Your task to perform on an android device: see creations saved in the google photos Image 0: 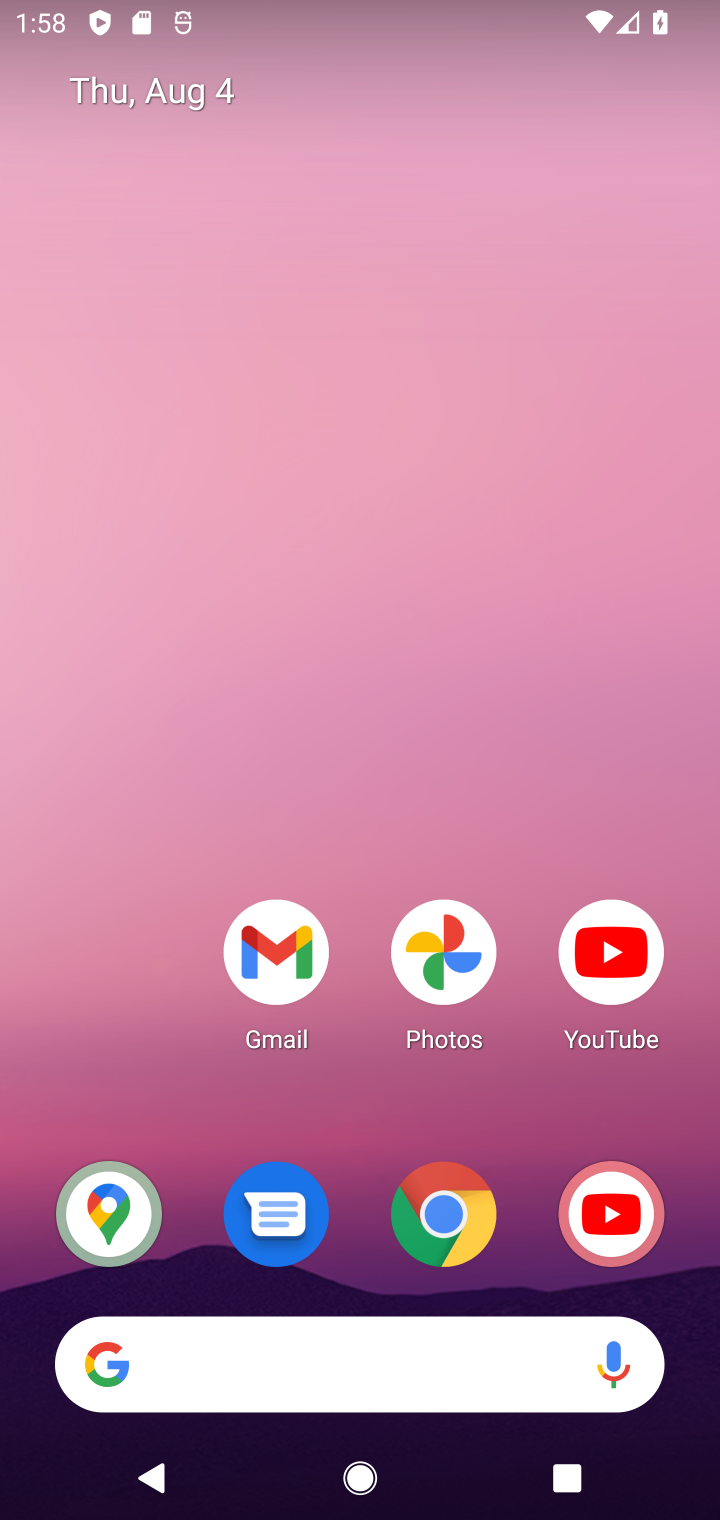
Step 0: drag from (494, 1061) to (329, 81)
Your task to perform on an android device: see creations saved in the google photos Image 1: 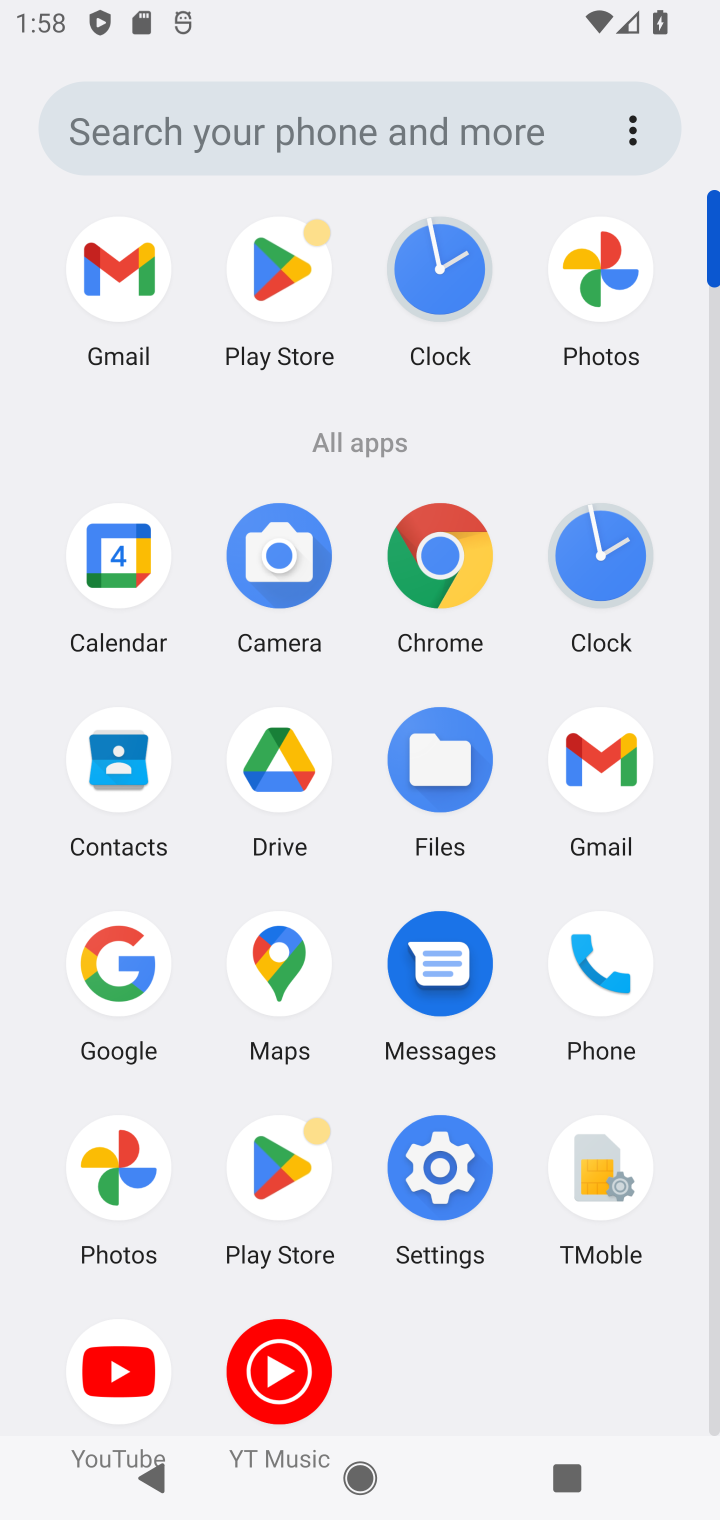
Step 1: click (130, 1176)
Your task to perform on an android device: see creations saved in the google photos Image 2: 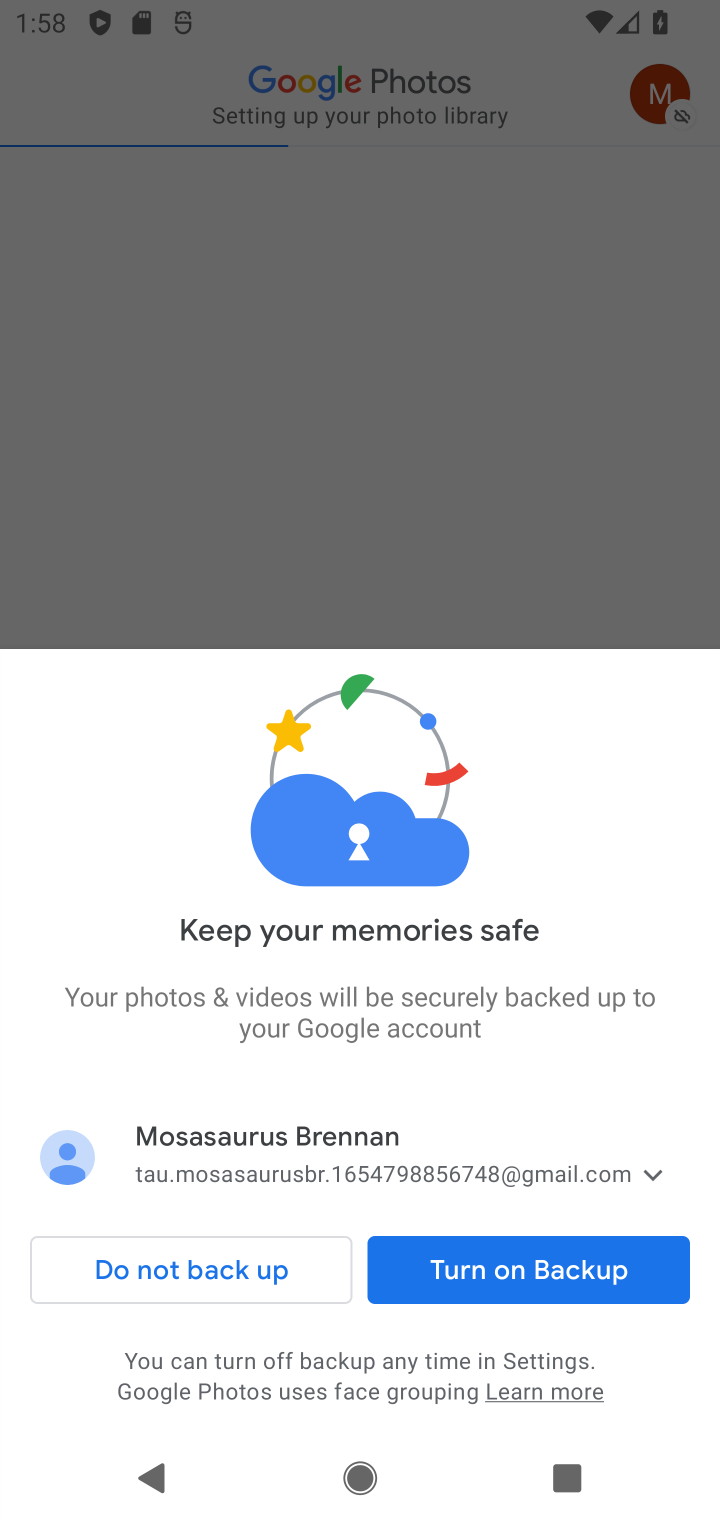
Step 2: click (532, 1287)
Your task to perform on an android device: see creations saved in the google photos Image 3: 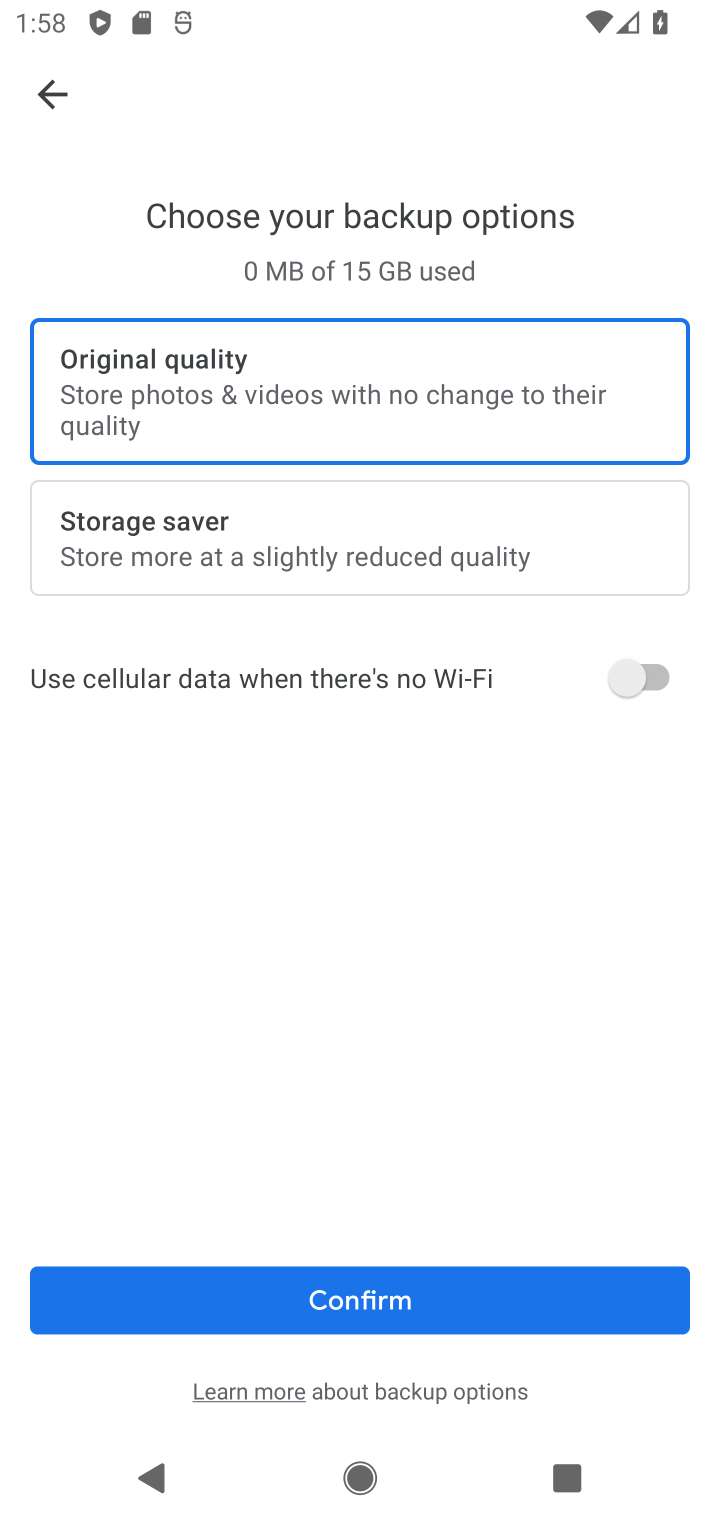
Step 3: click (216, 1304)
Your task to perform on an android device: see creations saved in the google photos Image 4: 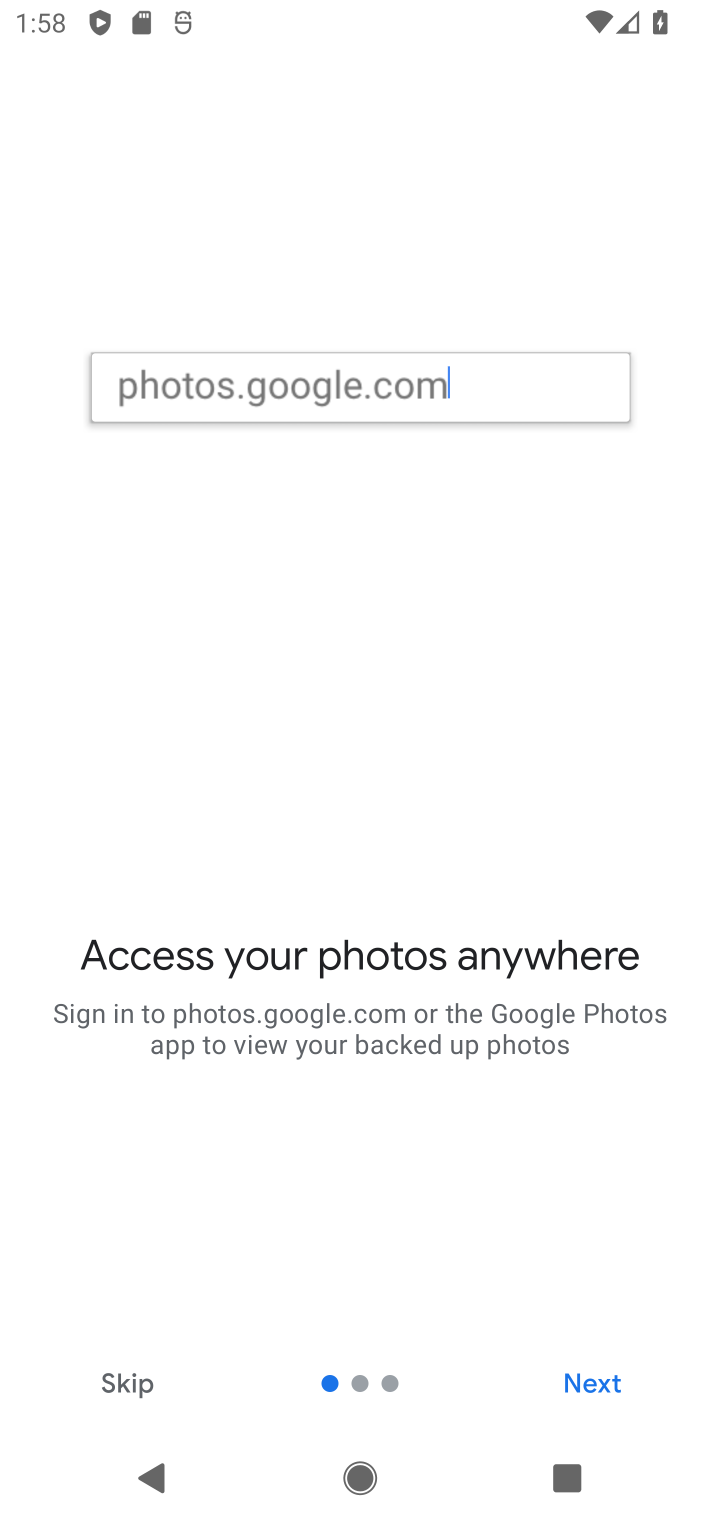
Step 4: click (579, 1384)
Your task to perform on an android device: see creations saved in the google photos Image 5: 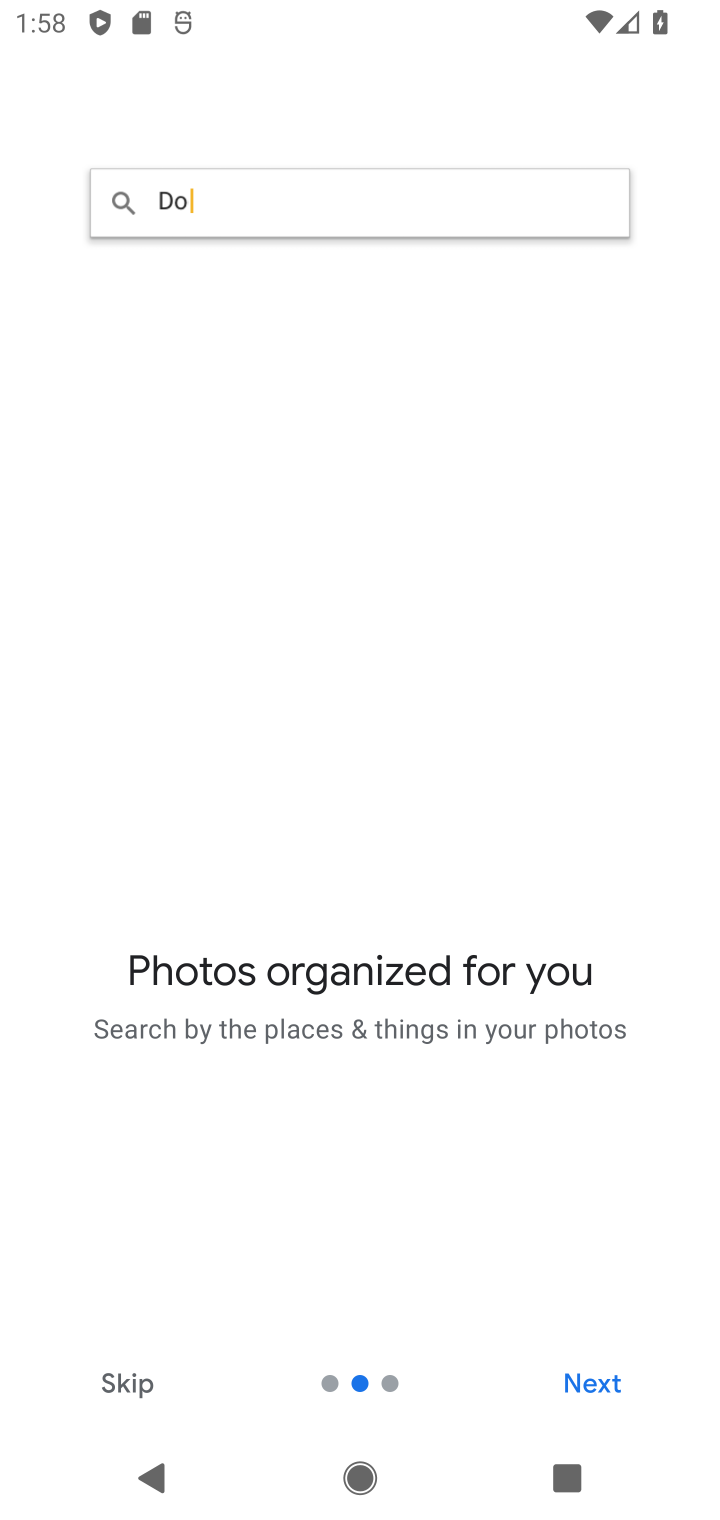
Step 5: click (574, 1378)
Your task to perform on an android device: see creations saved in the google photos Image 6: 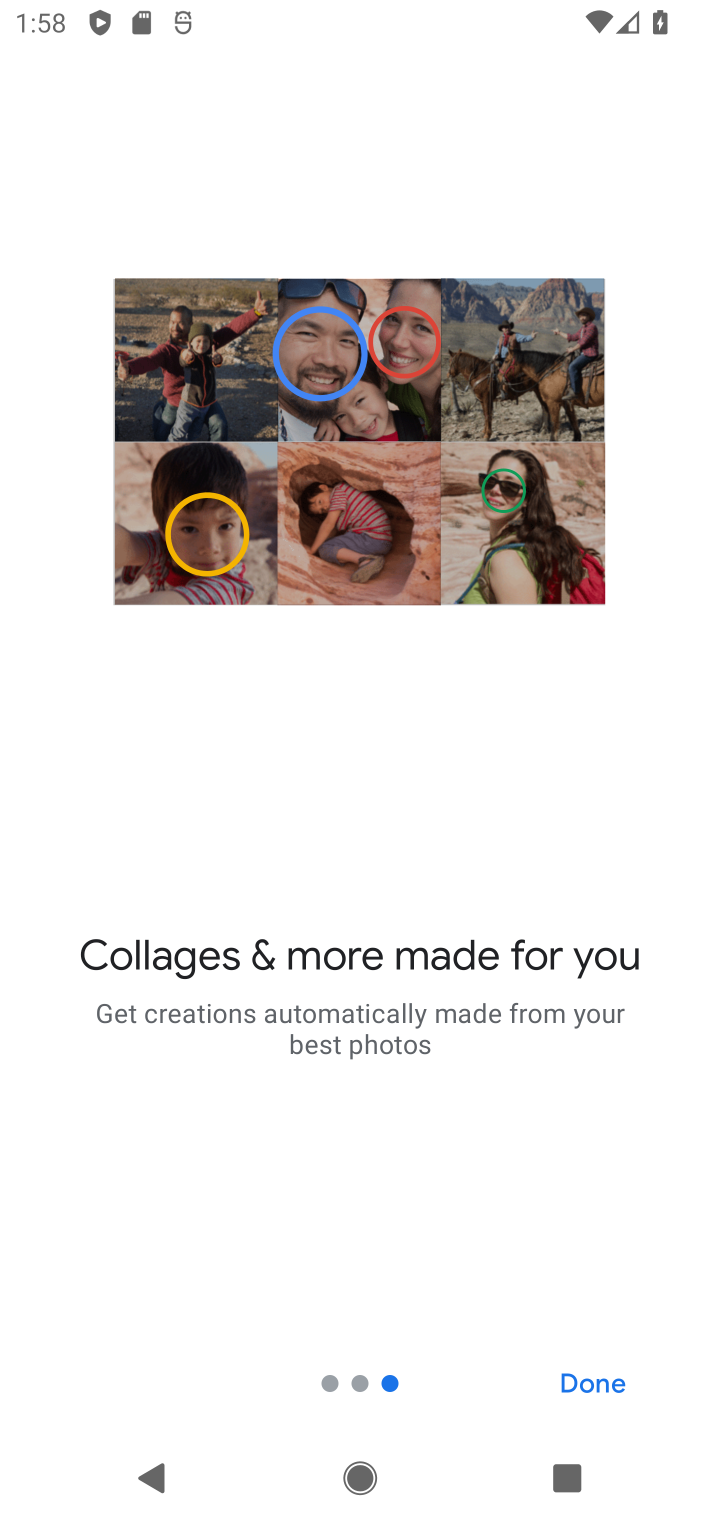
Step 6: click (568, 1373)
Your task to perform on an android device: see creations saved in the google photos Image 7: 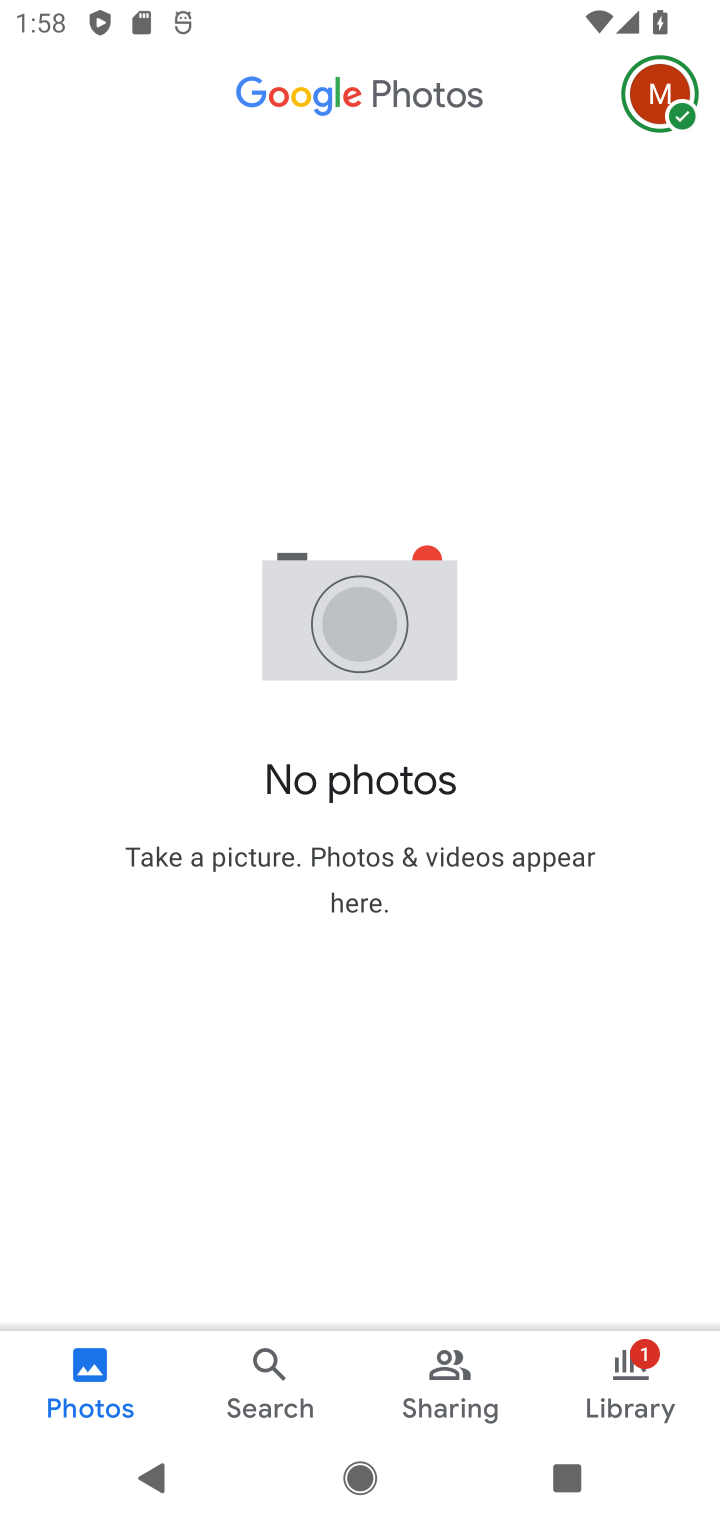
Step 7: click (258, 1371)
Your task to perform on an android device: see creations saved in the google photos Image 8: 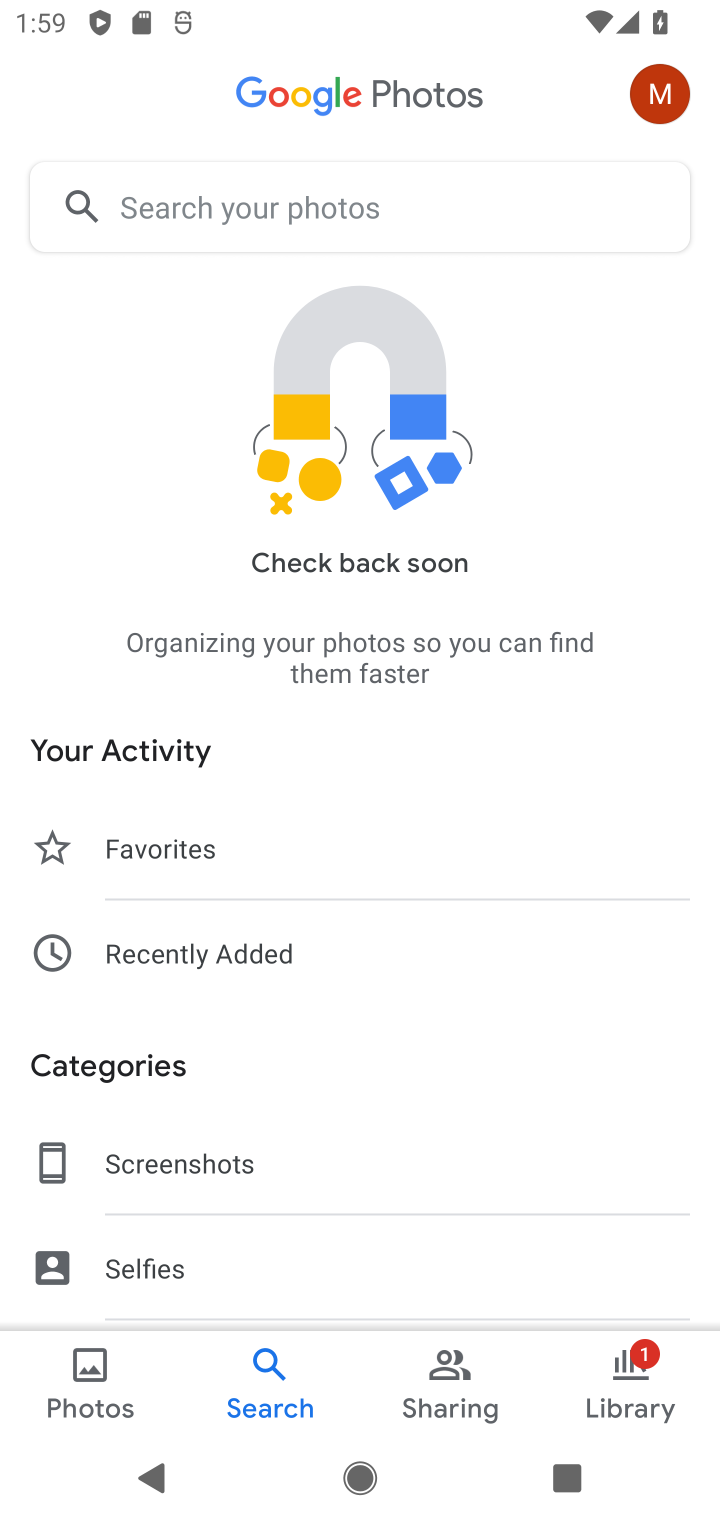
Step 8: click (180, 208)
Your task to perform on an android device: see creations saved in the google photos Image 9: 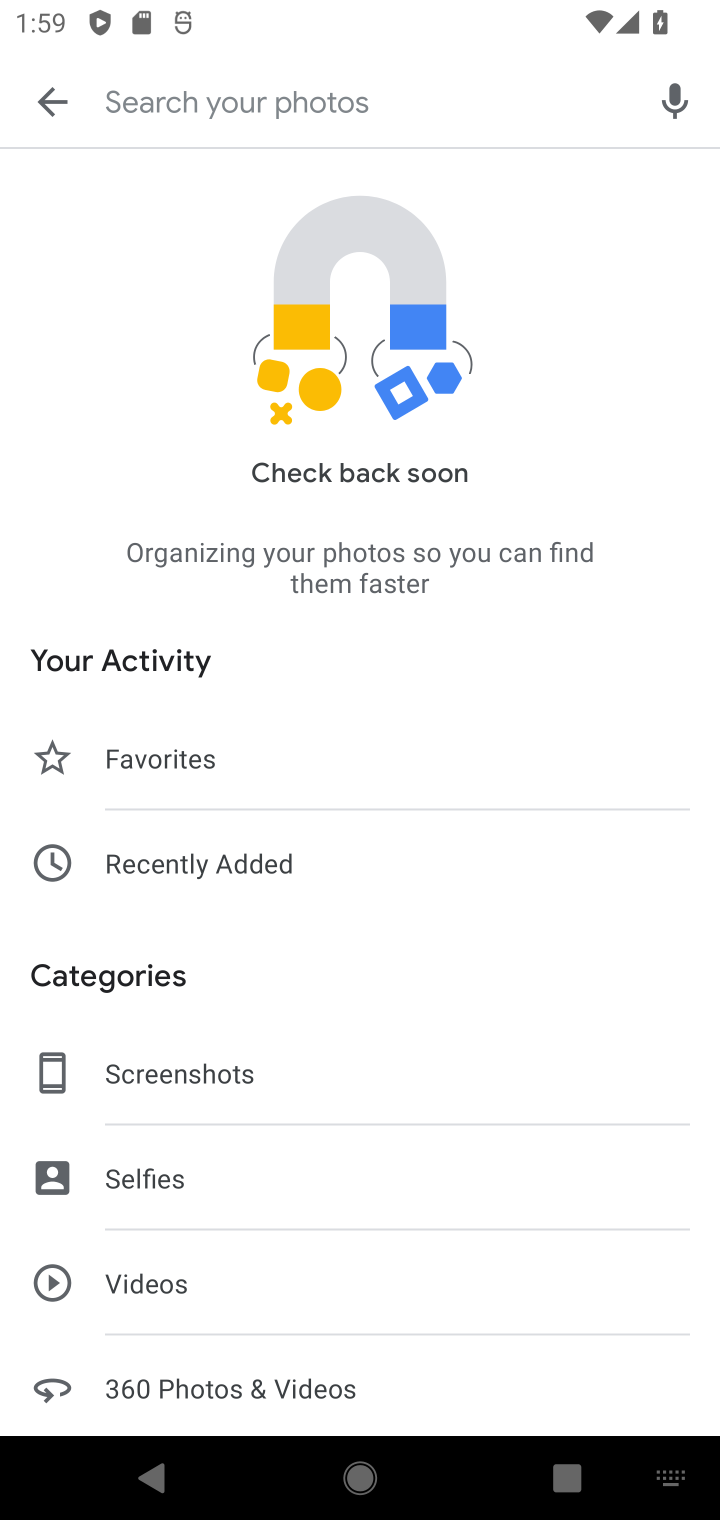
Step 9: drag from (250, 1134) to (210, 437)
Your task to perform on an android device: see creations saved in the google photos Image 10: 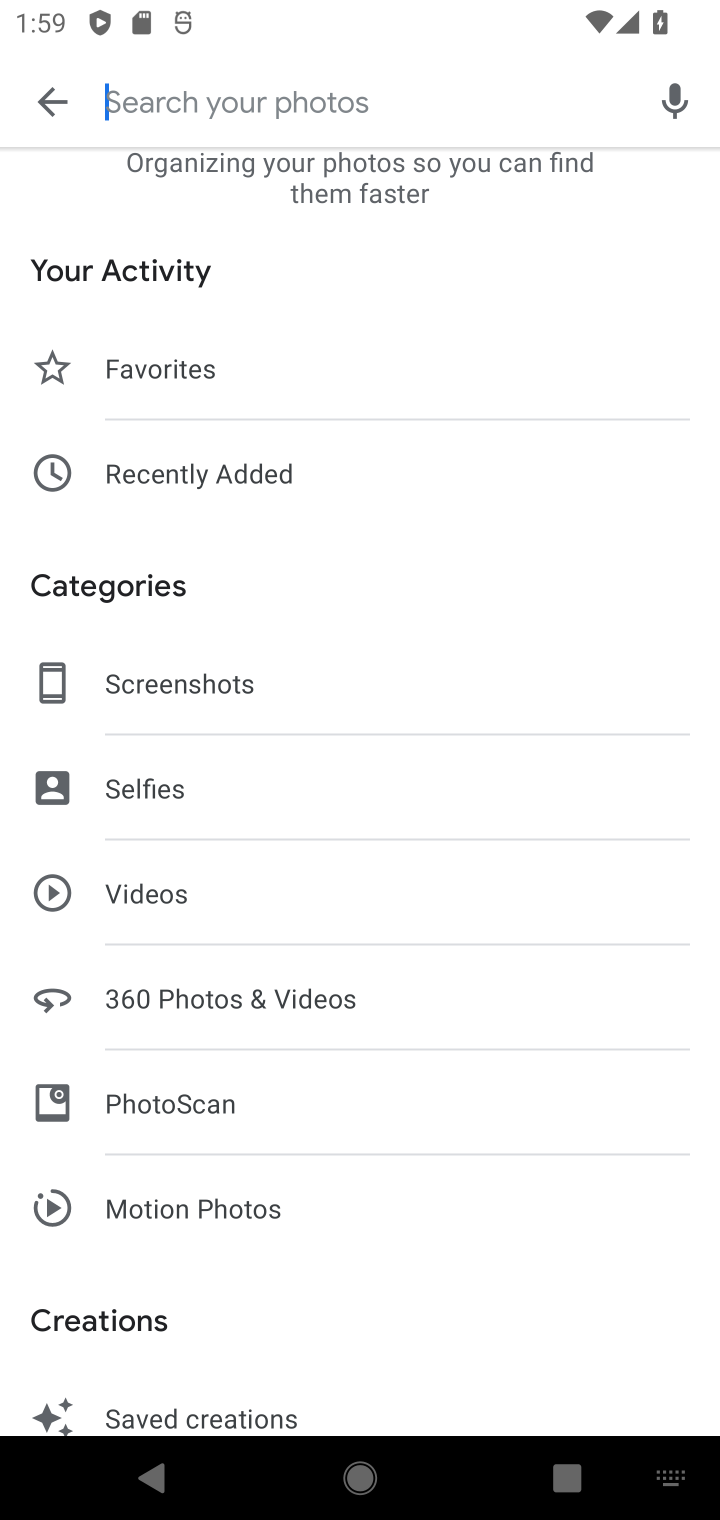
Step 10: drag from (177, 1307) to (166, 320)
Your task to perform on an android device: see creations saved in the google photos Image 11: 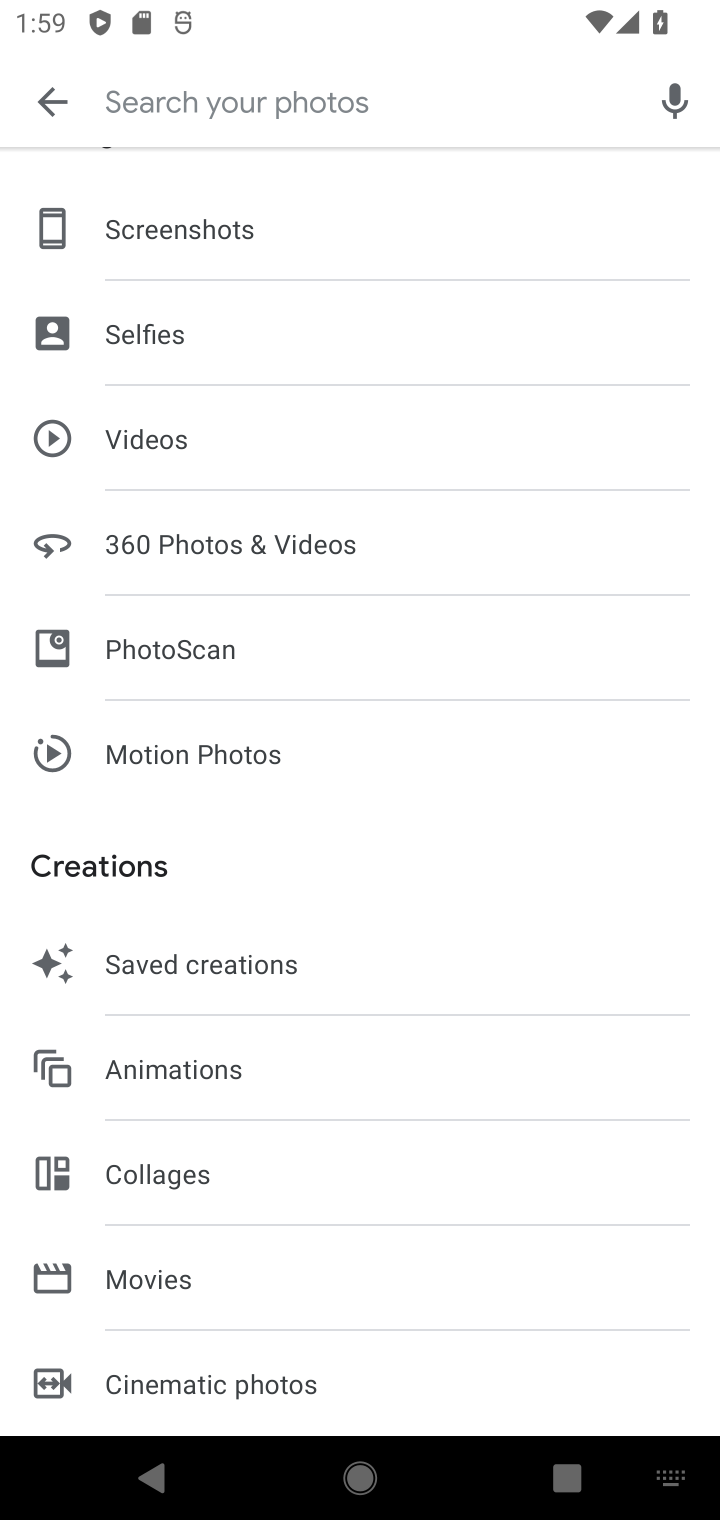
Step 11: click (229, 962)
Your task to perform on an android device: see creations saved in the google photos Image 12: 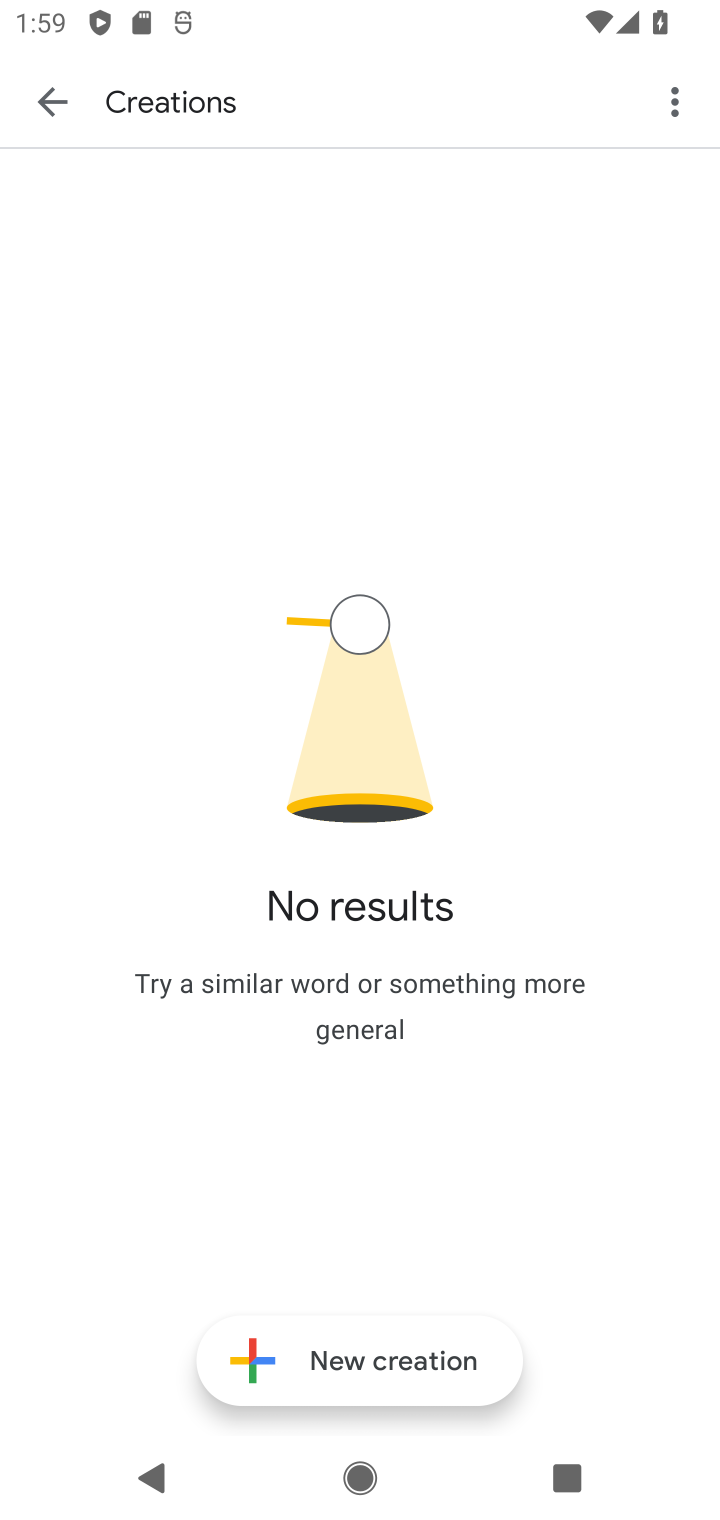
Step 12: task complete